Your task to perform on an android device: Open the map Image 0: 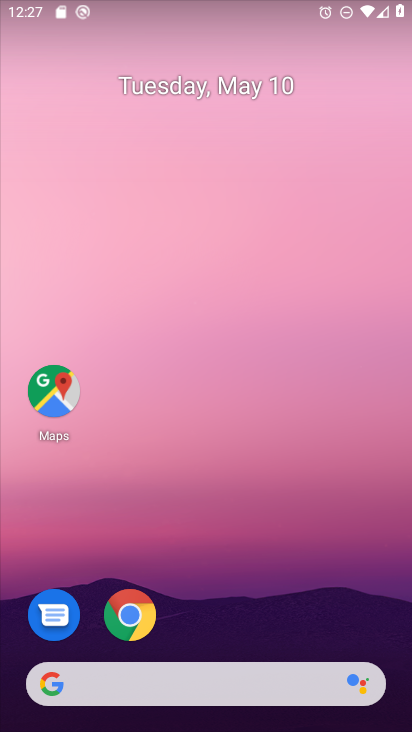
Step 0: drag from (267, 707) to (165, 247)
Your task to perform on an android device: Open the map Image 1: 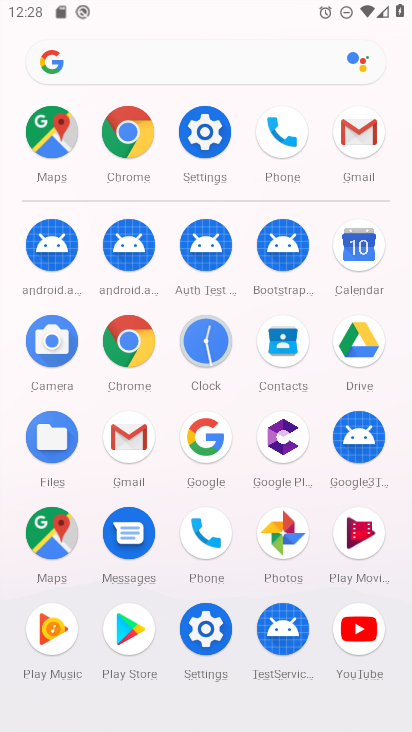
Step 1: click (52, 127)
Your task to perform on an android device: Open the map Image 2: 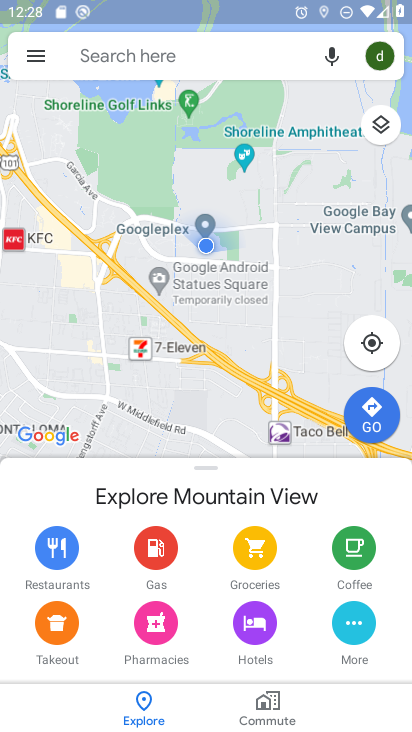
Step 2: click (180, 241)
Your task to perform on an android device: Open the map Image 3: 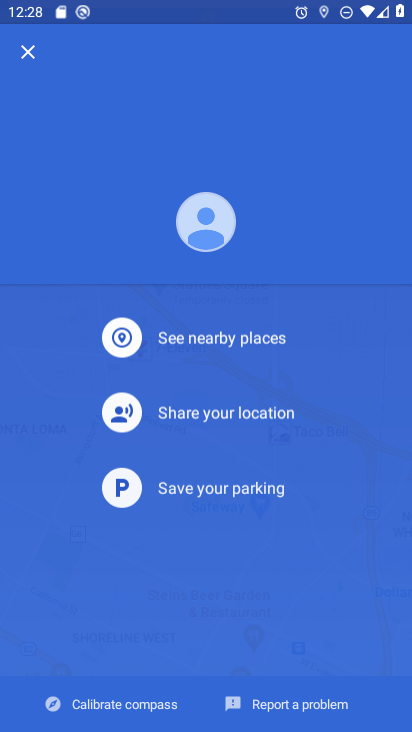
Step 3: task complete